Your task to perform on an android device: add a contact in the contacts app Image 0: 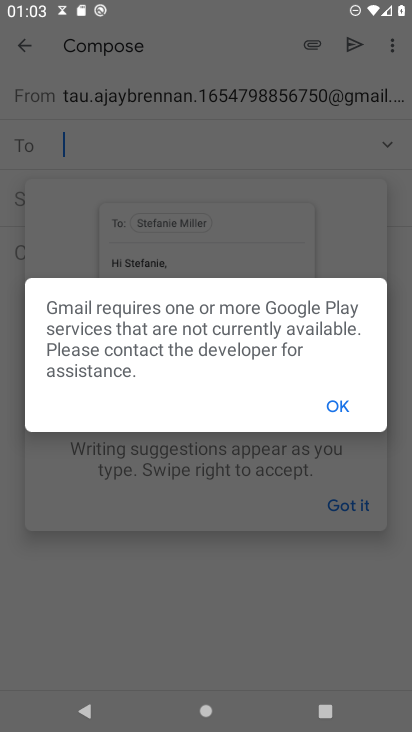
Step 0: press home button
Your task to perform on an android device: add a contact in the contacts app Image 1: 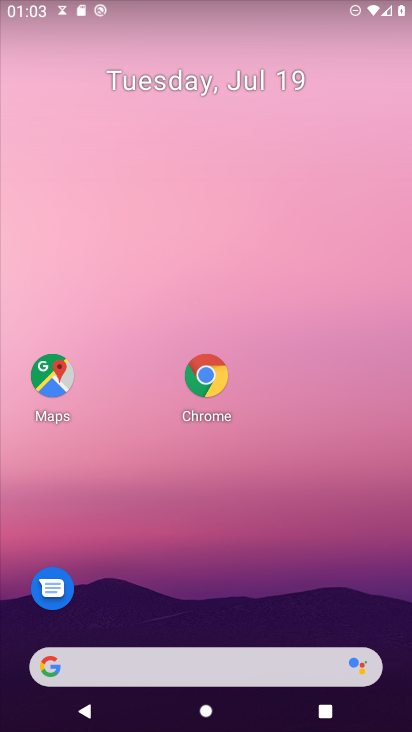
Step 1: drag from (356, 579) to (322, 111)
Your task to perform on an android device: add a contact in the contacts app Image 2: 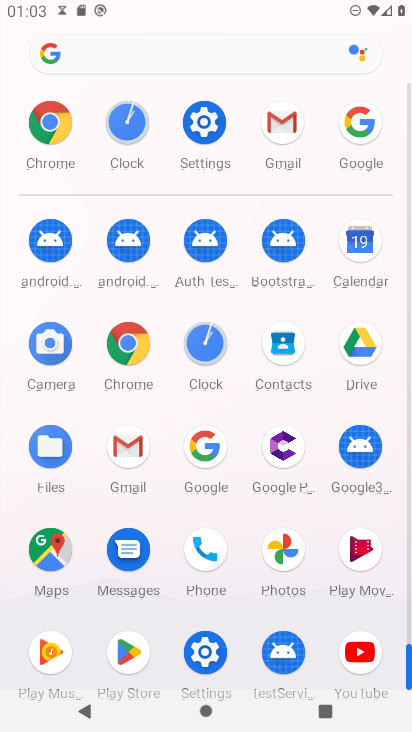
Step 2: click (290, 337)
Your task to perform on an android device: add a contact in the contacts app Image 3: 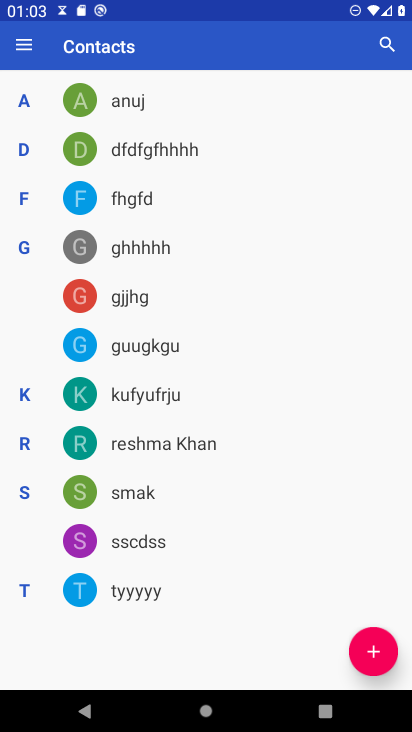
Step 3: click (378, 650)
Your task to perform on an android device: add a contact in the contacts app Image 4: 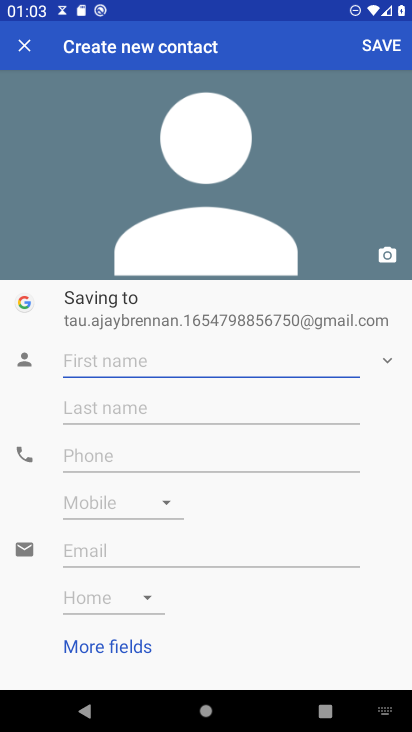
Step 4: type "fdffdgfffgd"
Your task to perform on an android device: add a contact in the contacts app Image 5: 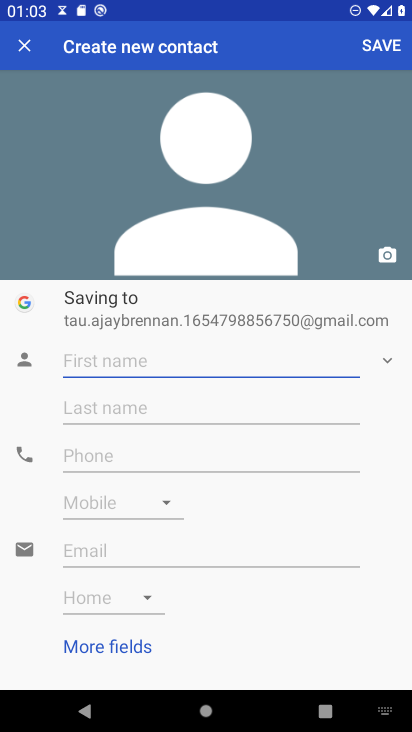
Step 5: click (131, 360)
Your task to perform on an android device: add a contact in the contacts app Image 6: 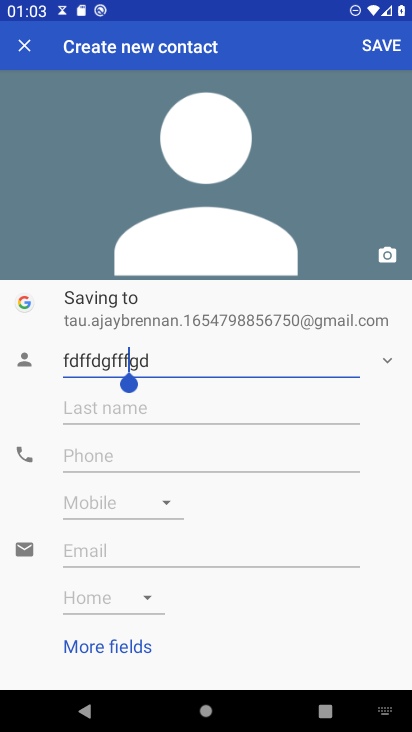
Step 6: click (99, 456)
Your task to perform on an android device: add a contact in the contacts app Image 7: 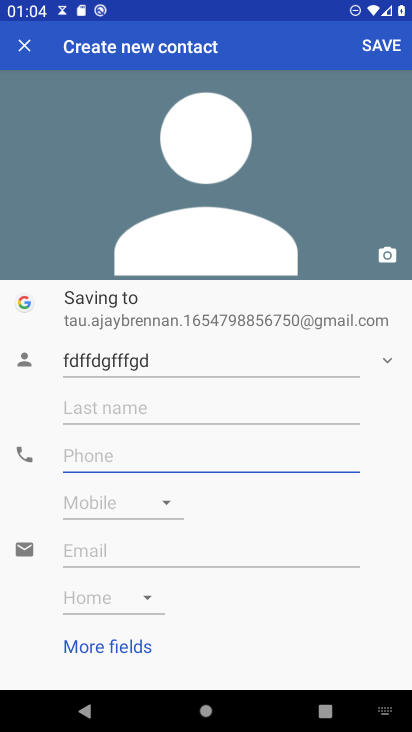
Step 7: type "43656554565"
Your task to perform on an android device: add a contact in the contacts app Image 8: 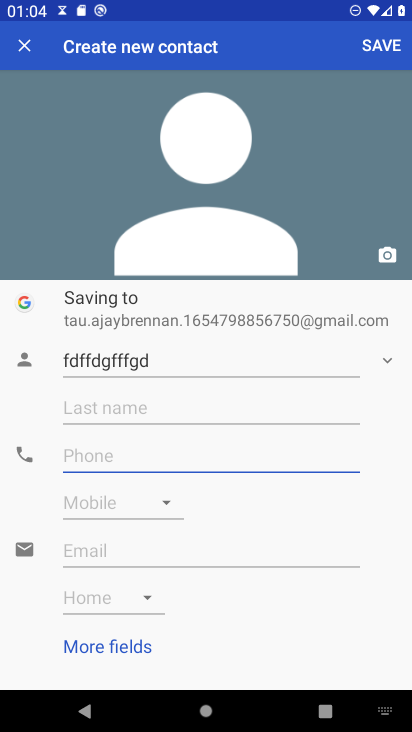
Step 8: click (124, 457)
Your task to perform on an android device: add a contact in the contacts app Image 9: 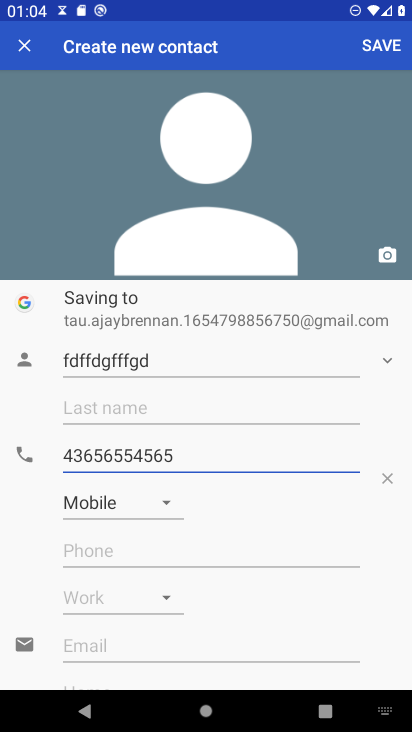
Step 9: click (370, 43)
Your task to perform on an android device: add a contact in the contacts app Image 10: 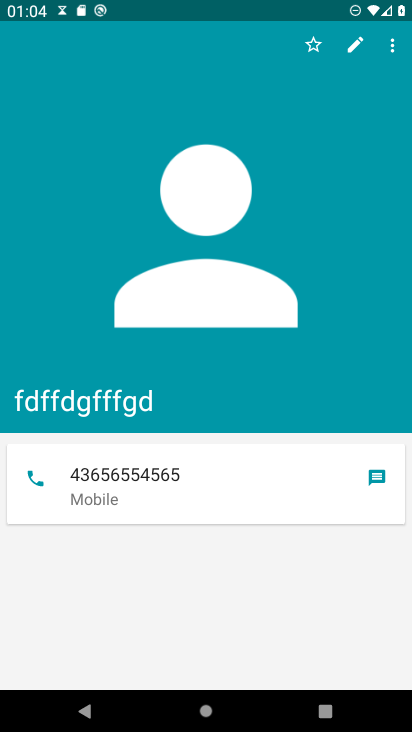
Step 10: task complete